Your task to perform on an android device: turn on data saver in the chrome app Image 0: 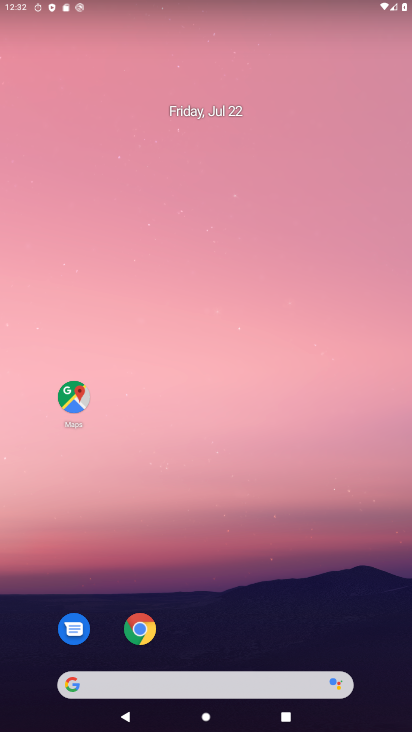
Step 0: click (144, 628)
Your task to perform on an android device: turn on data saver in the chrome app Image 1: 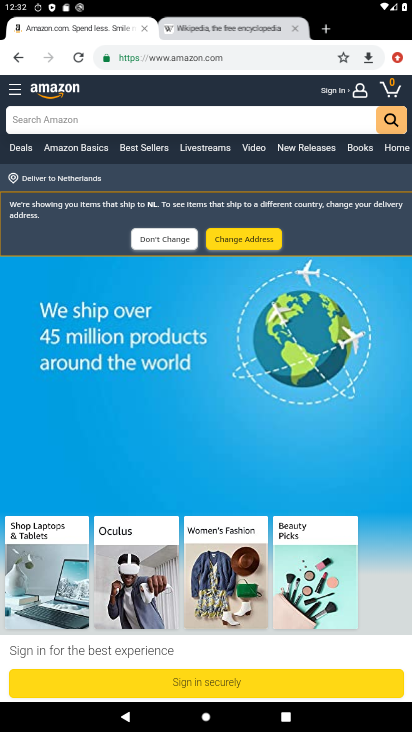
Step 1: click (394, 57)
Your task to perform on an android device: turn on data saver in the chrome app Image 2: 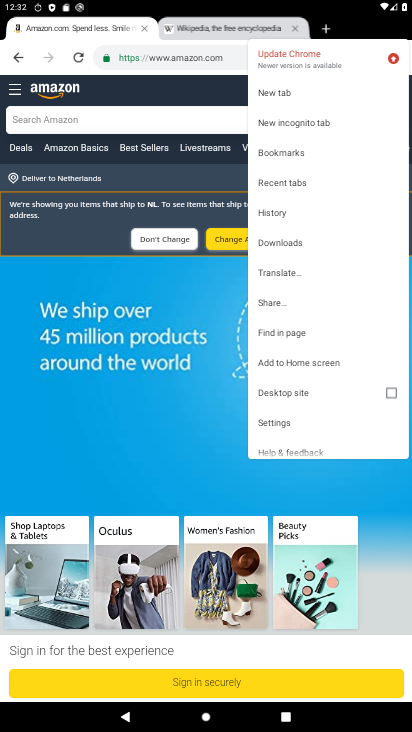
Step 2: click (288, 424)
Your task to perform on an android device: turn on data saver in the chrome app Image 3: 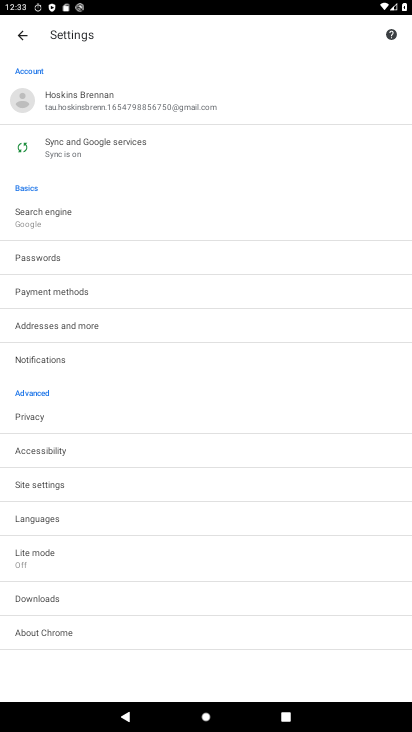
Step 3: click (52, 562)
Your task to perform on an android device: turn on data saver in the chrome app Image 4: 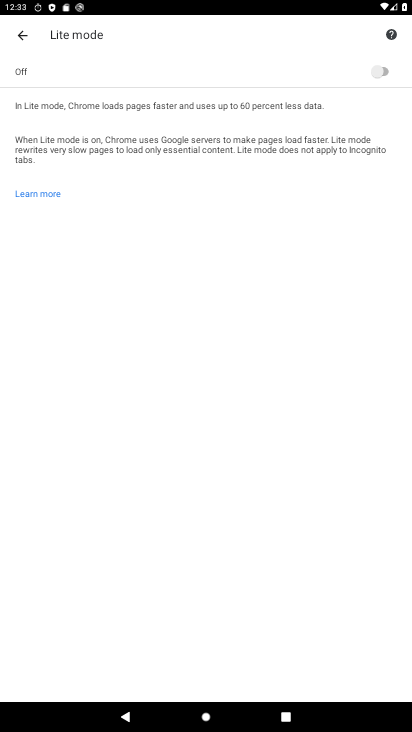
Step 4: click (382, 70)
Your task to perform on an android device: turn on data saver in the chrome app Image 5: 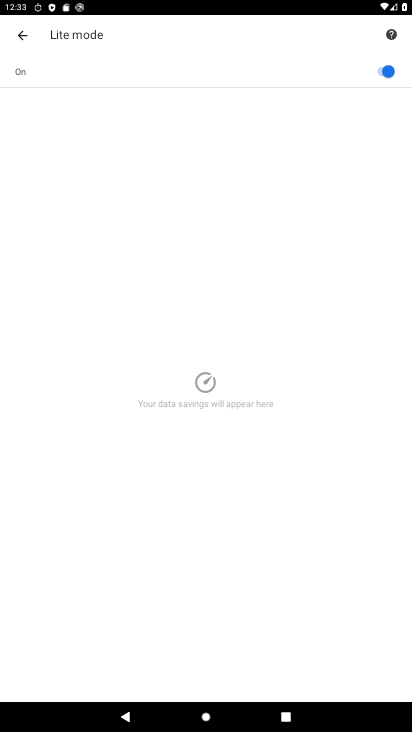
Step 5: task complete